Your task to perform on an android device: Show me recent news Image 0: 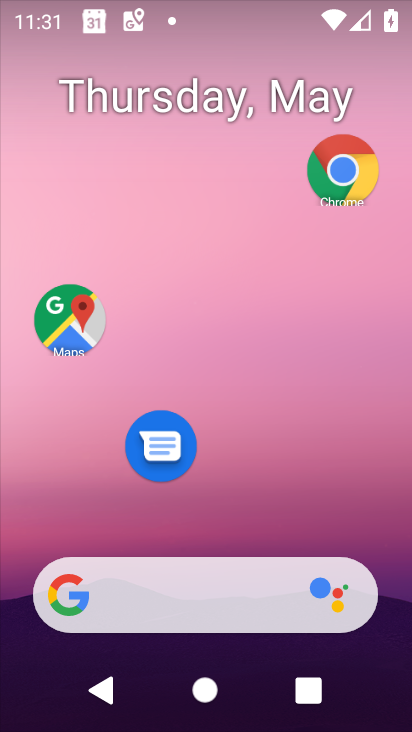
Step 0: drag from (282, 581) to (243, 10)
Your task to perform on an android device: Show me recent news Image 1: 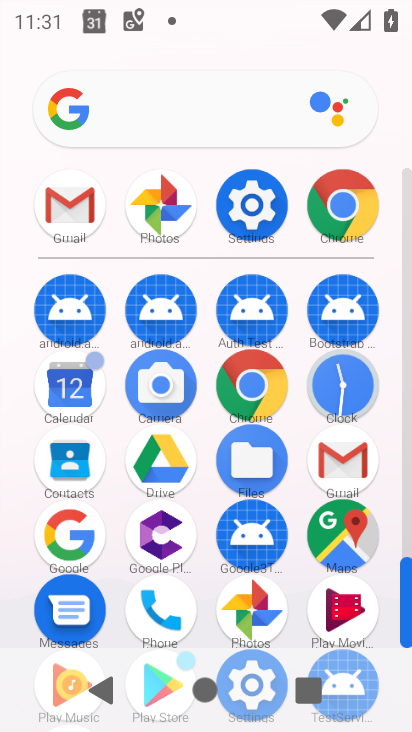
Step 1: click (254, 385)
Your task to perform on an android device: Show me recent news Image 2: 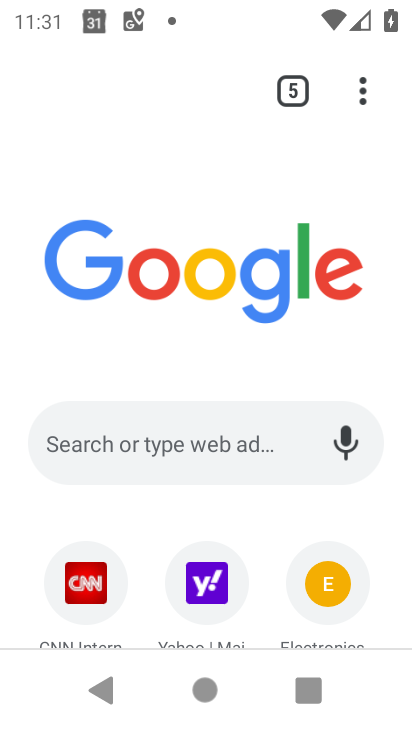
Step 2: click (271, 431)
Your task to perform on an android device: Show me recent news Image 3: 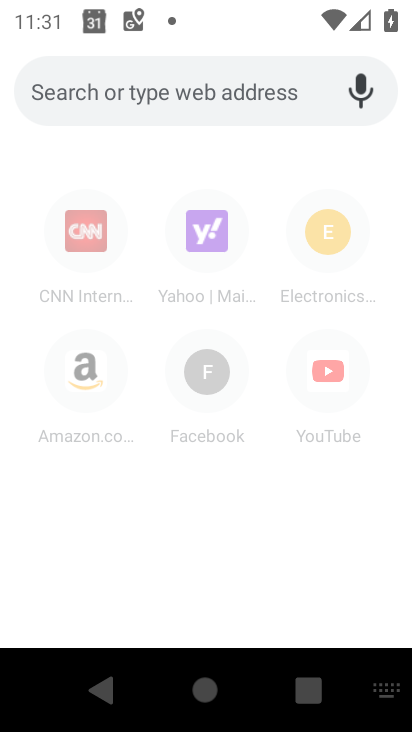
Step 3: type "recent news"
Your task to perform on an android device: Show me recent news Image 4: 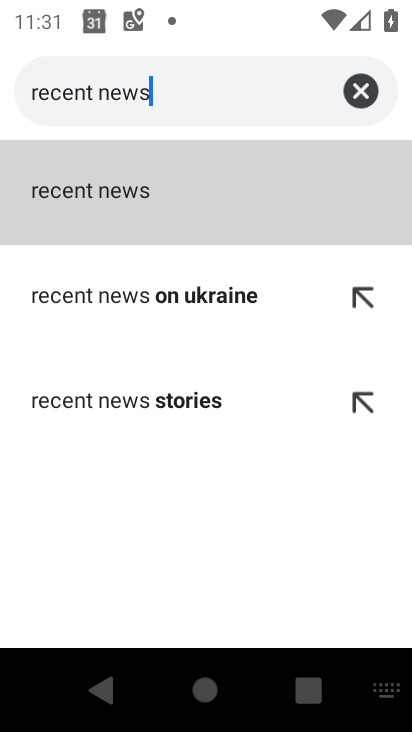
Step 4: click (193, 162)
Your task to perform on an android device: Show me recent news Image 5: 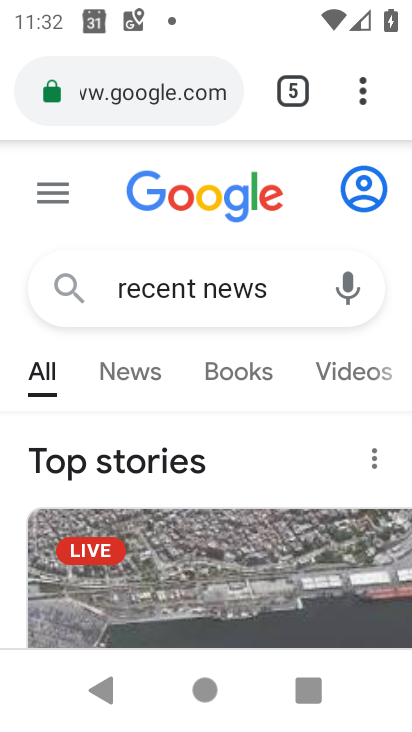
Step 5: task complete